Your task to perform on an android device: Go to Android settings Image 0: 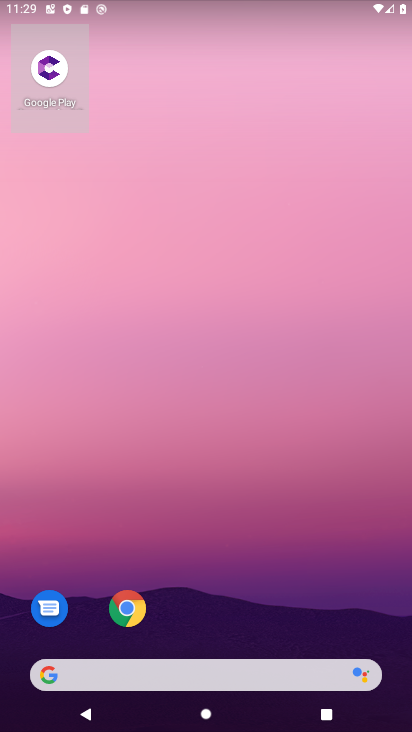
Step 0: drag from (265, 488) to (220, 260)
Your task to perform on an android device: Go to Android settings Image 1: 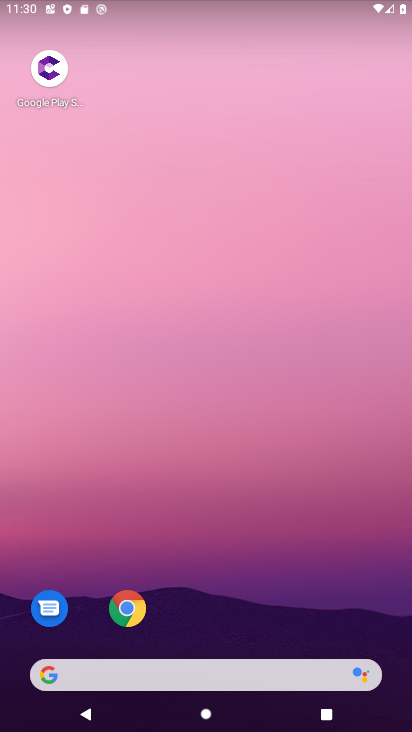
Step 1: drag from (260, 596) to (258, 184)
Your task to perform on an android device: Go to Android settings Image 2: 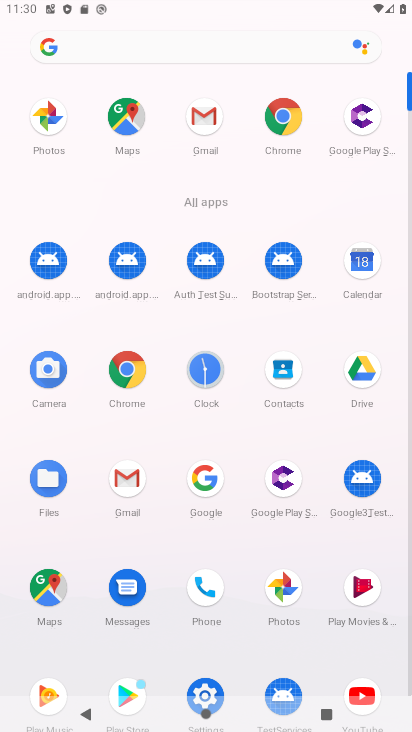
Step 2: drag from (224, 628) to (245, 399)
Your task to perform on an android device: Go to Android settings Image 3: 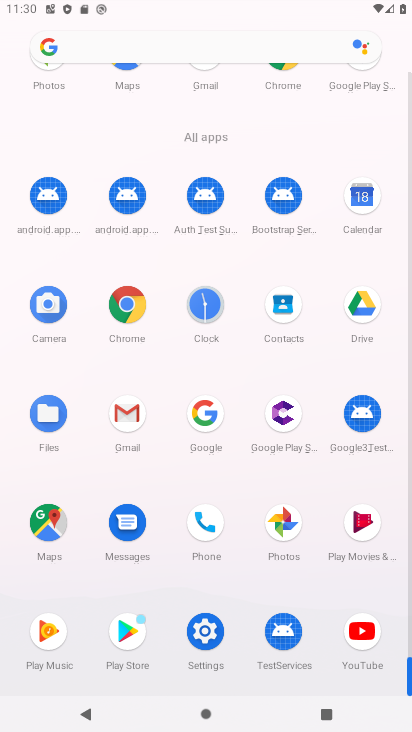
Step 3: click (211, 637)
Your task to perform on an android device: Go to Android settings Image 4: 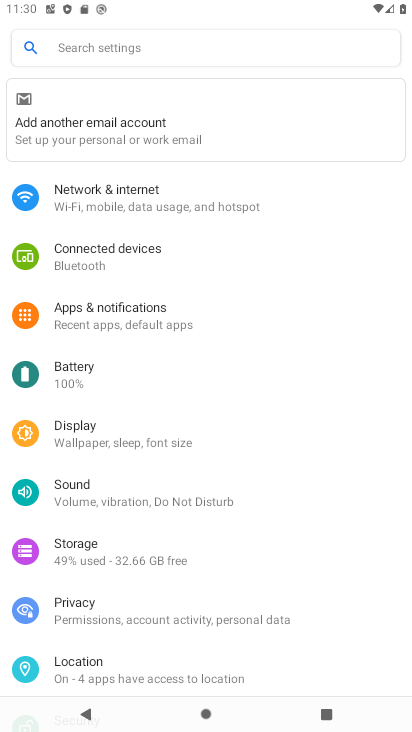
Step 4: task complete